Your task to perform on an android device: open chrome privacy settings Image 0: 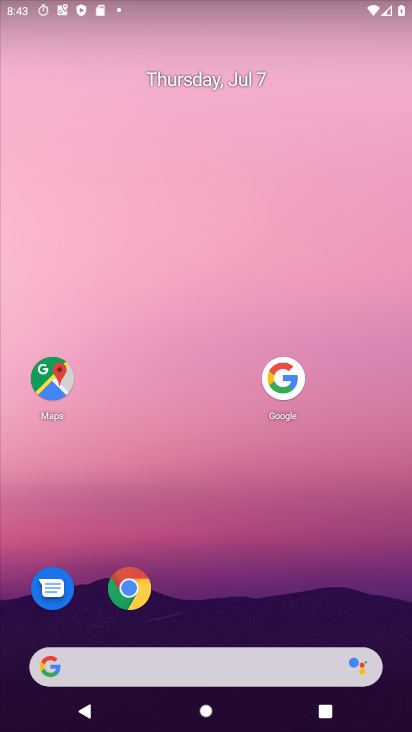
Step 0: click (134, 595)
Your task to perform on an android device: open chrome privacy settings Image 1: 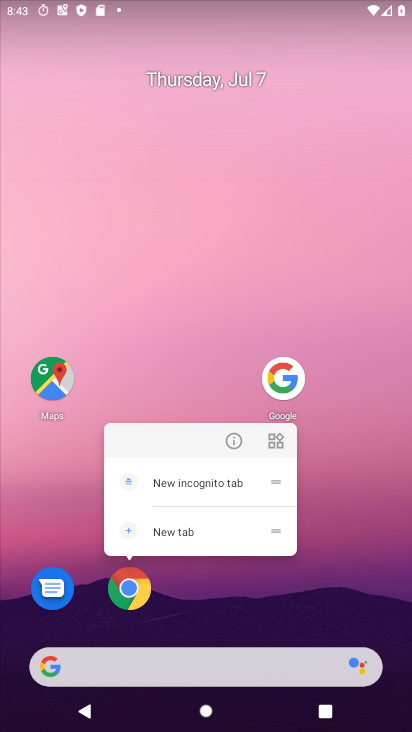
Step 1: click (129, 595)
Your task to perform on an android device: open chrome privacy settings Image 2: 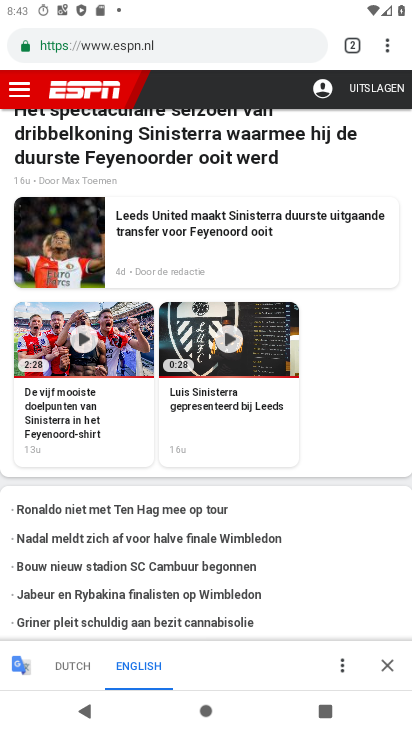
Step 2: drag from (386, 42) to (224, 551)
Your task to perform on an android device: open chrome privacy settings Image 3: 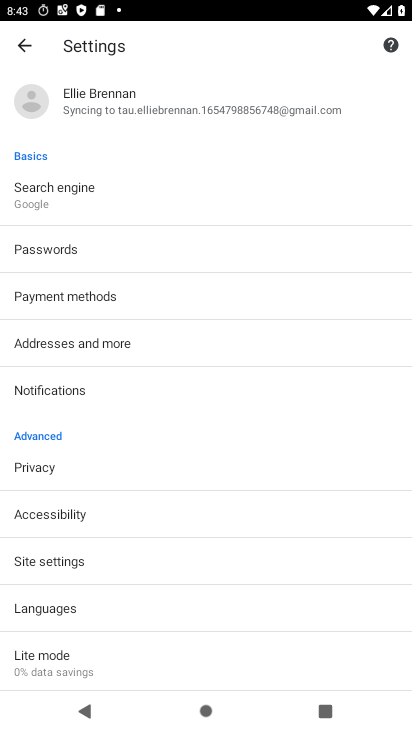
Step 3: click (60, 467)
Your task to perform on an android device: open chrome privacy settings Image 4: 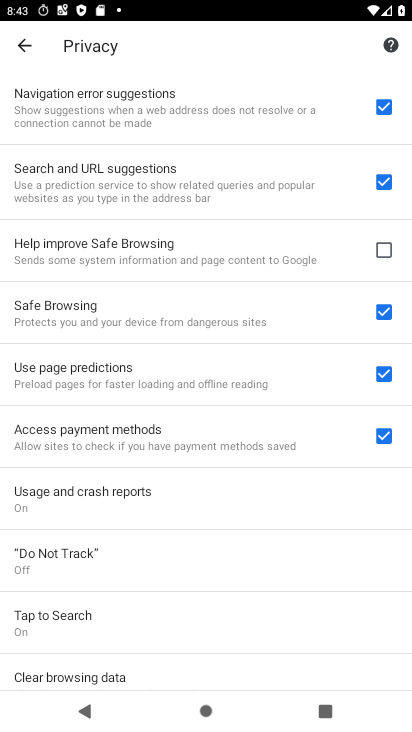
Step 4: task complete